Your task to perform on an android device: Clear all items from cart on newegg.com. Search for razer kraken on newegg.com, select the first entry, and add it to the cart. Image 0: 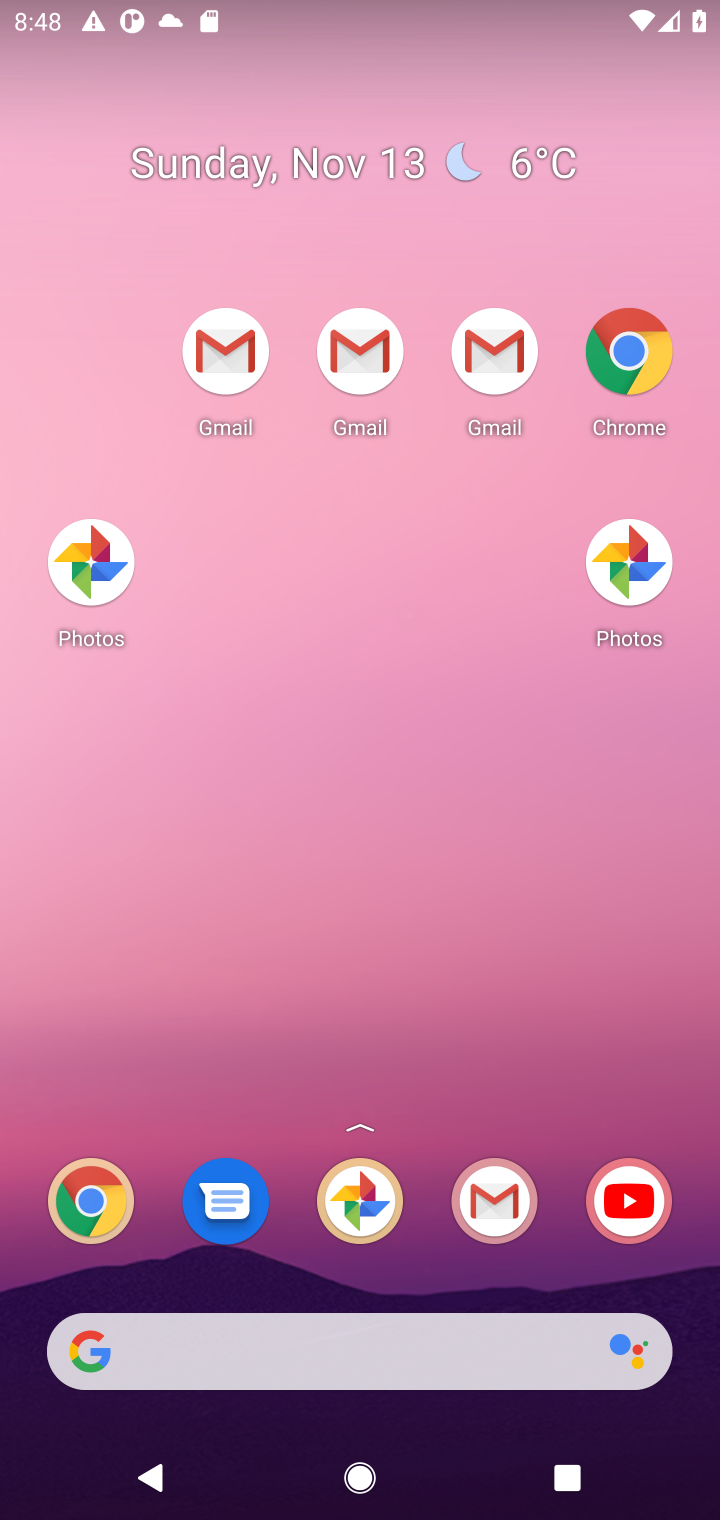
Step 0: drag from (425, 1292) to (526, 233)
Your task to perform on an android device: Clear all items from cart on newegg.com. Search for razer kraken on newegg.com, select the first entry, and add it to the cart. Image 1: 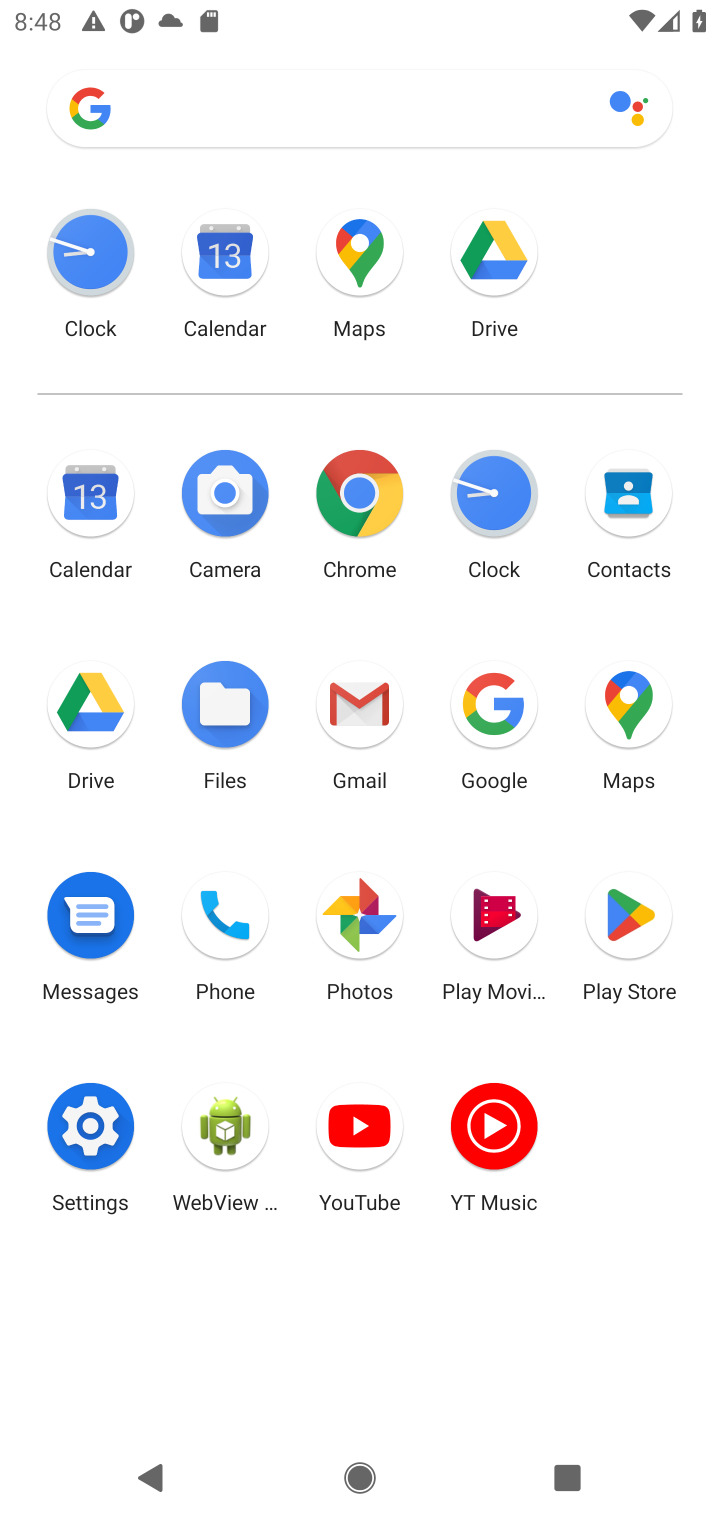
Step 1: click (352, 503)
Your task to perform on an android device: Clear all items from cart on newegg.com. Search for razer kraken on newegg.com, select the first entry, and add it to the cart. Image 2: 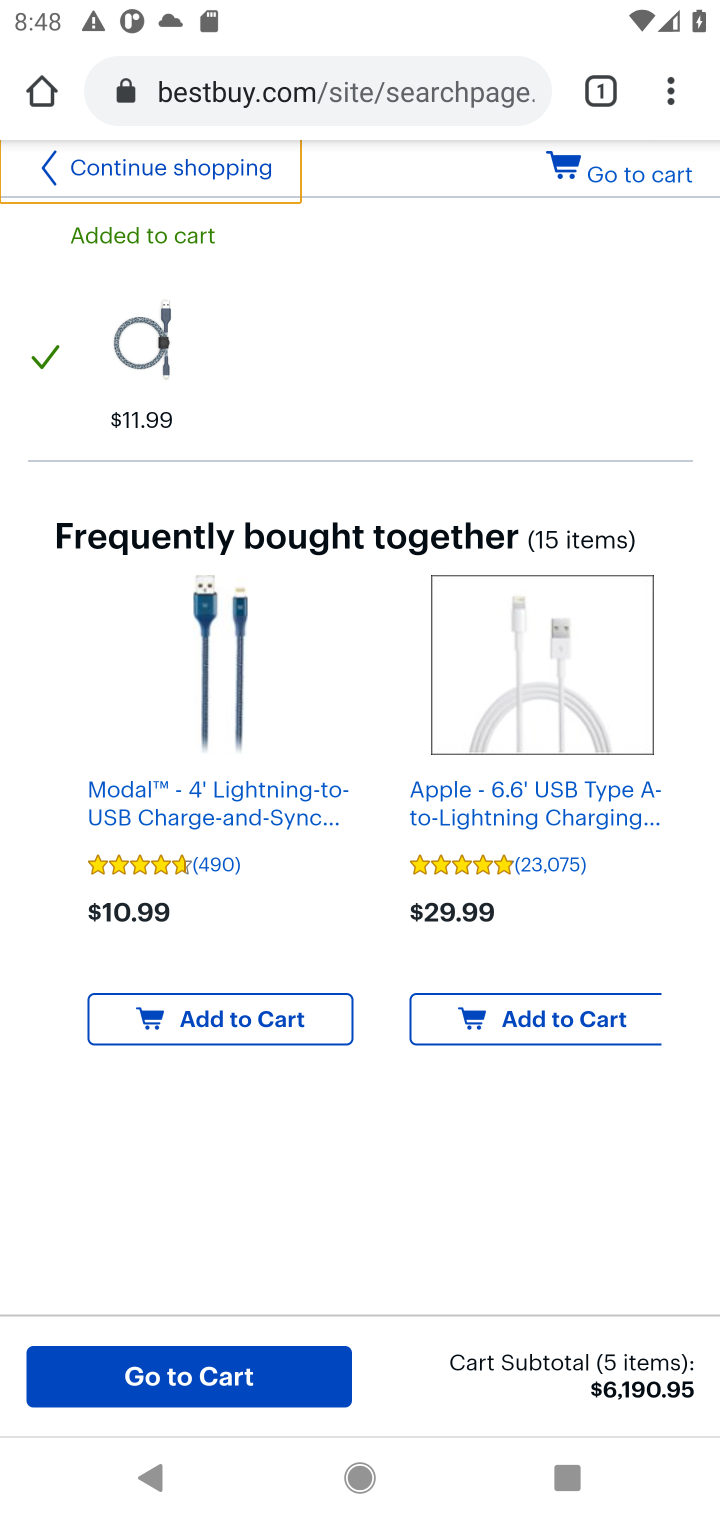
Step 2: click (346, 79)
Your task to perform on an android device: Clear all items from cart on newegg.com. Search for razer kraken on newegg.com, select the first entry, and add it to the cart. Image 3: 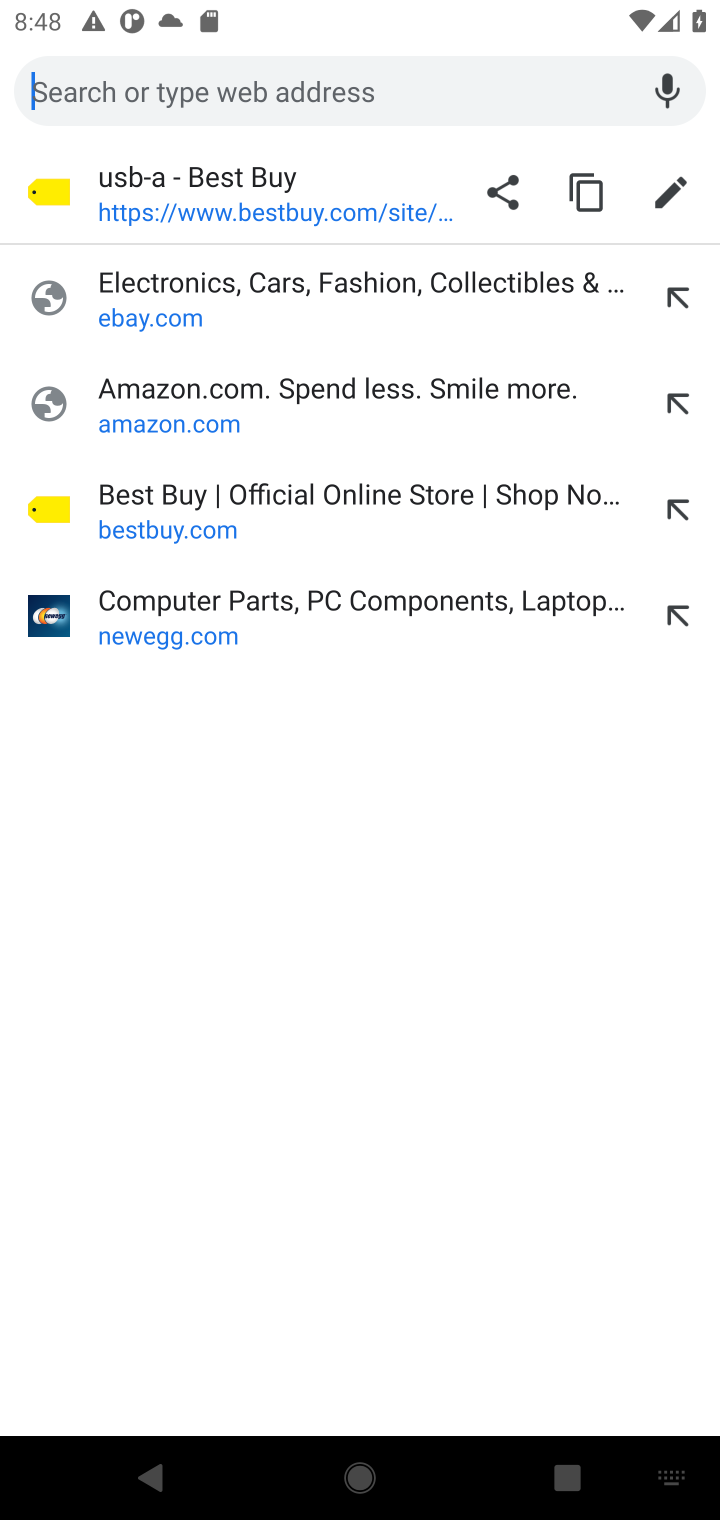
Step 3: type "newegg.com"
Your task to perform on an android device: Clear all items from cart on newegg.com. Search for razer kraken on newegg.com, select the first entry, and add it to the cart. Image 4: 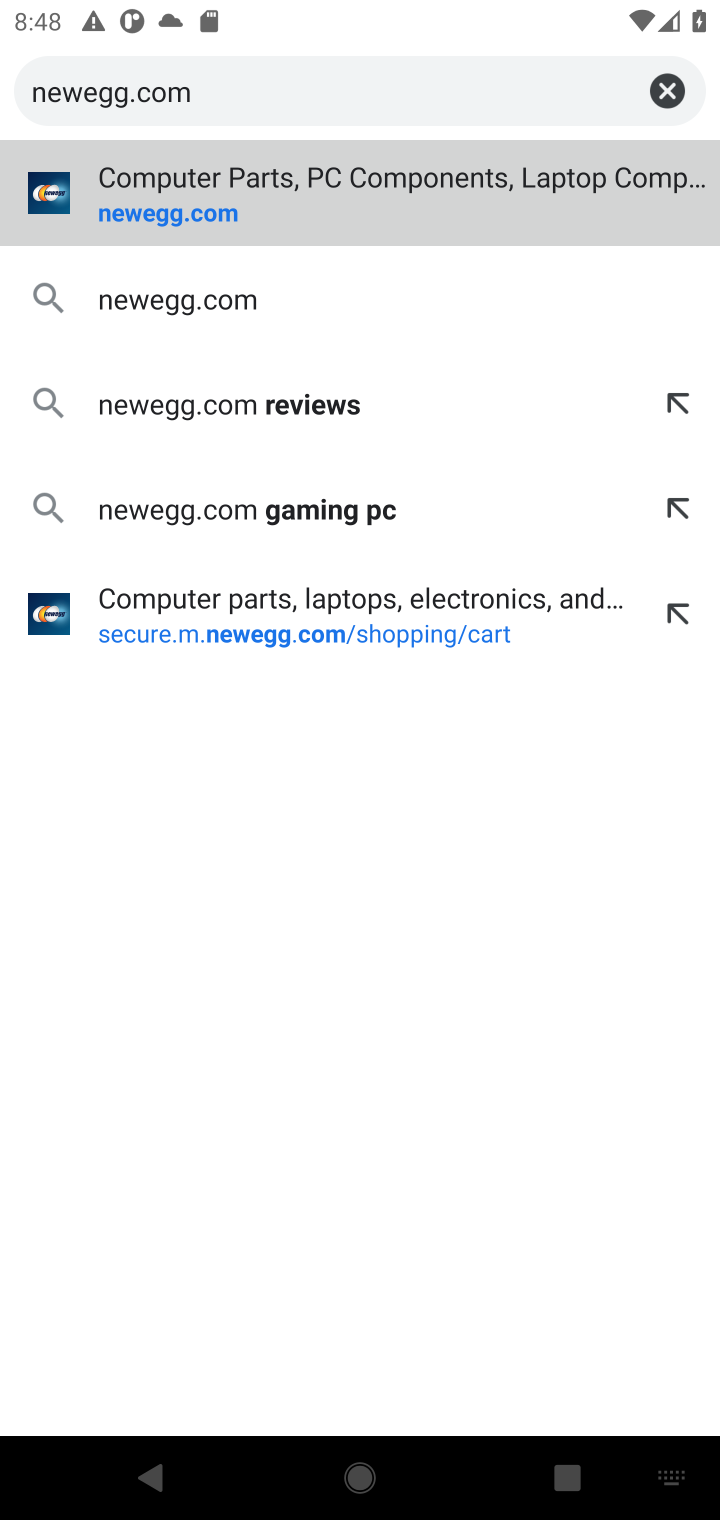
Step 4: press enter
Your task to perform on an android device: Clear all items from cart on newegg.com. Search for razer kraken on newegg.com, select the first entry, and add it to the cart. Image 5: 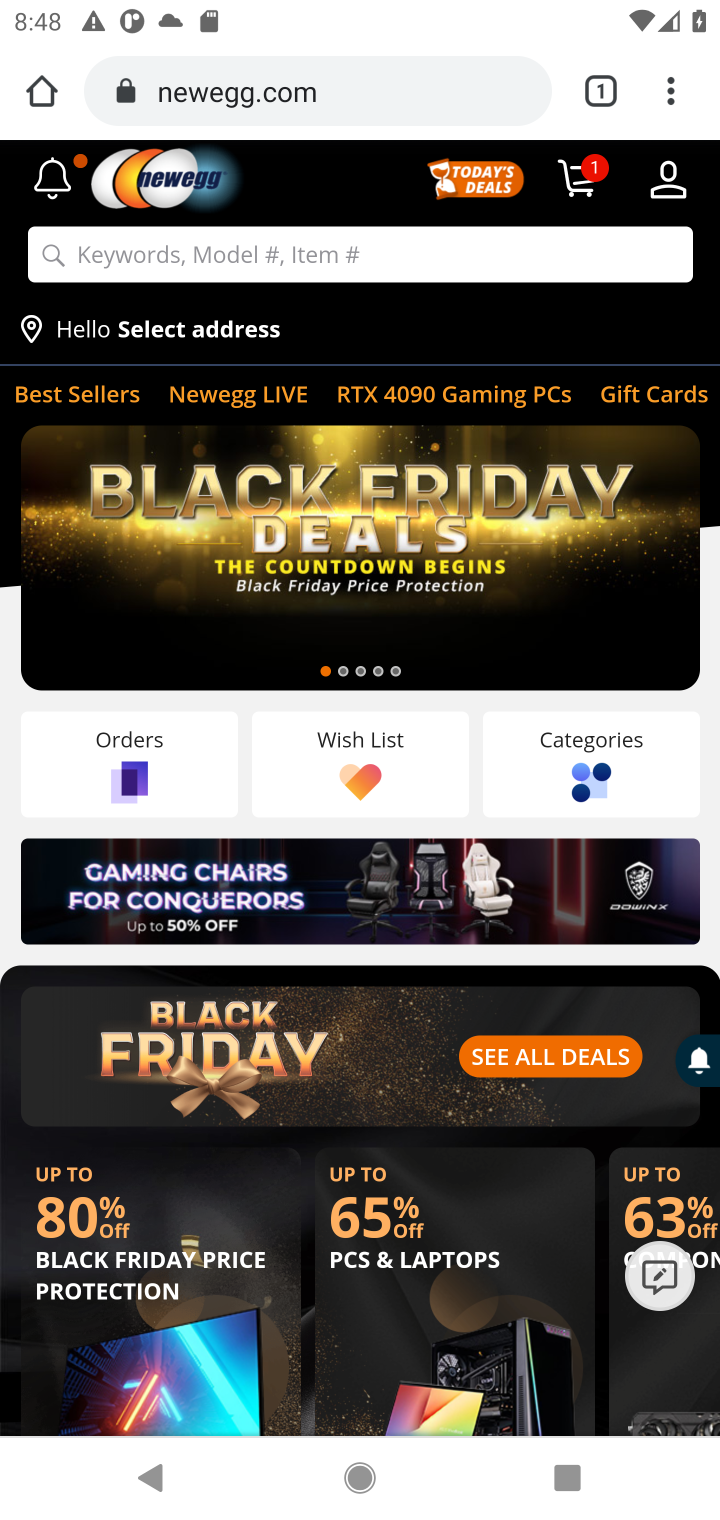
Step 5: click (590, 177)
Your task to perform on an android device: Clear all items from cart on newegg.com. Search for razer kraken on newegg.com, select the first entry, and add it to the cart. Image 6: 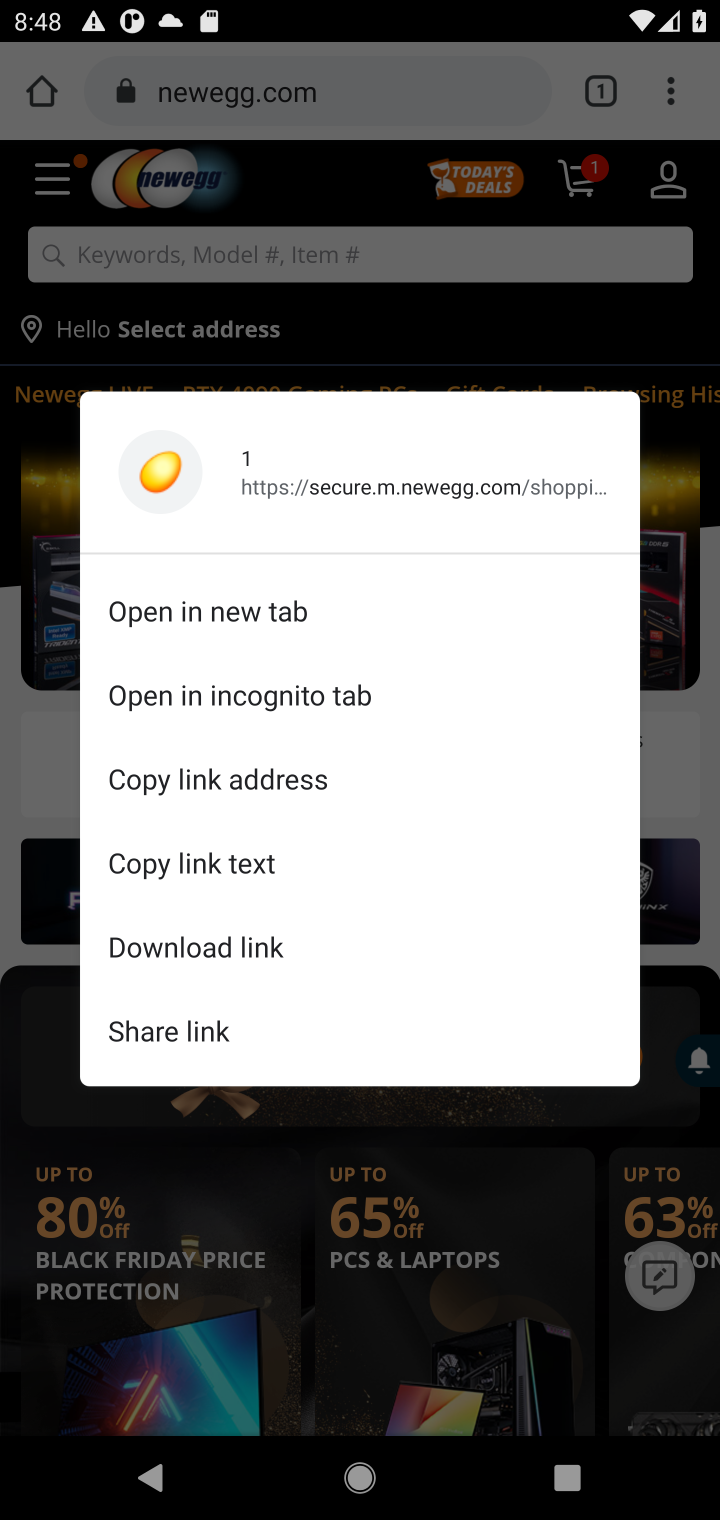
Step 6: click (575, 174)
Your task to perform on an android device: Clear all items from cart on newegg.com. Search for razer kraken on newegg.com, select the first entry, and add it to the cart. Image 7: 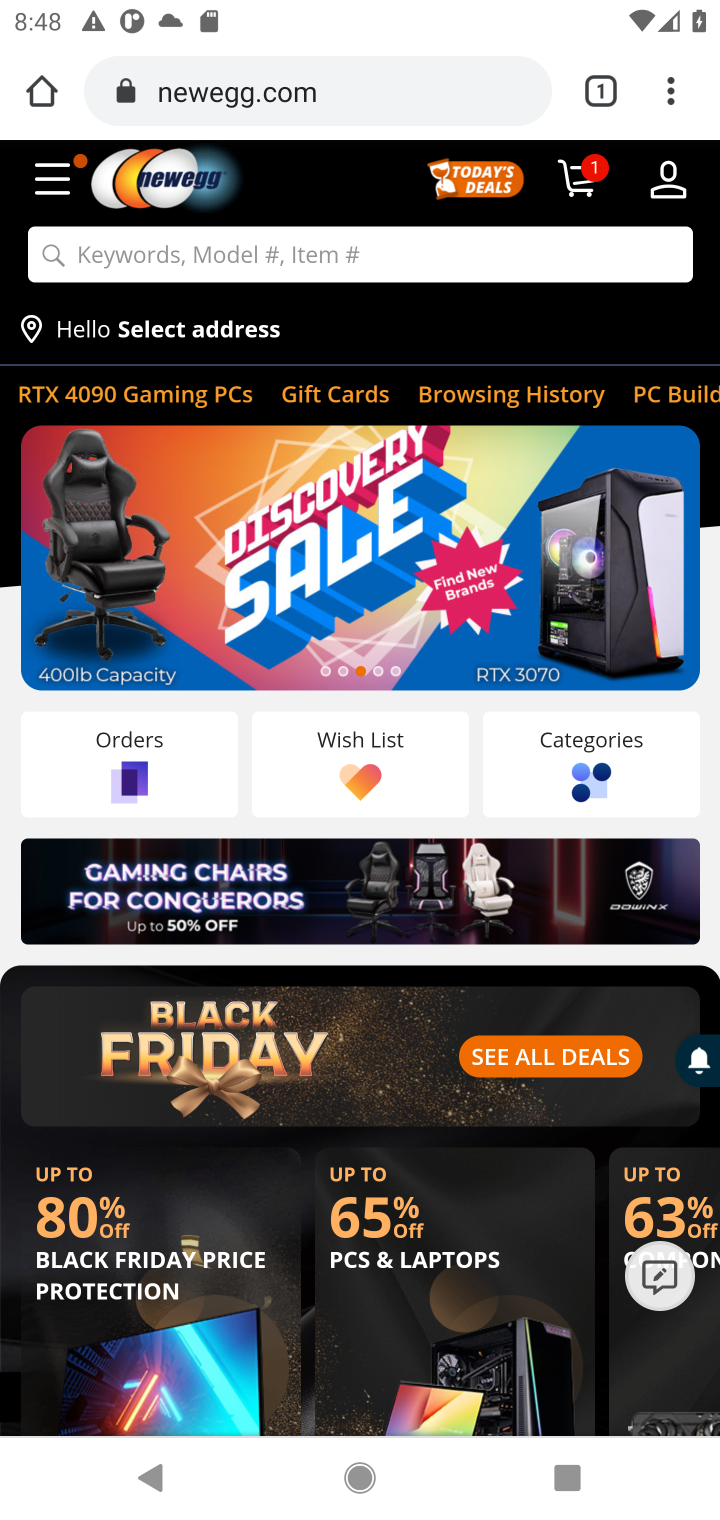
Step 7: click (571, 175)
Your task to perform on an android device: Clear all items from cart on newegg.com. Search for razer kraken on newegg.com, select the first entry, and add it to the cart. Image 8: 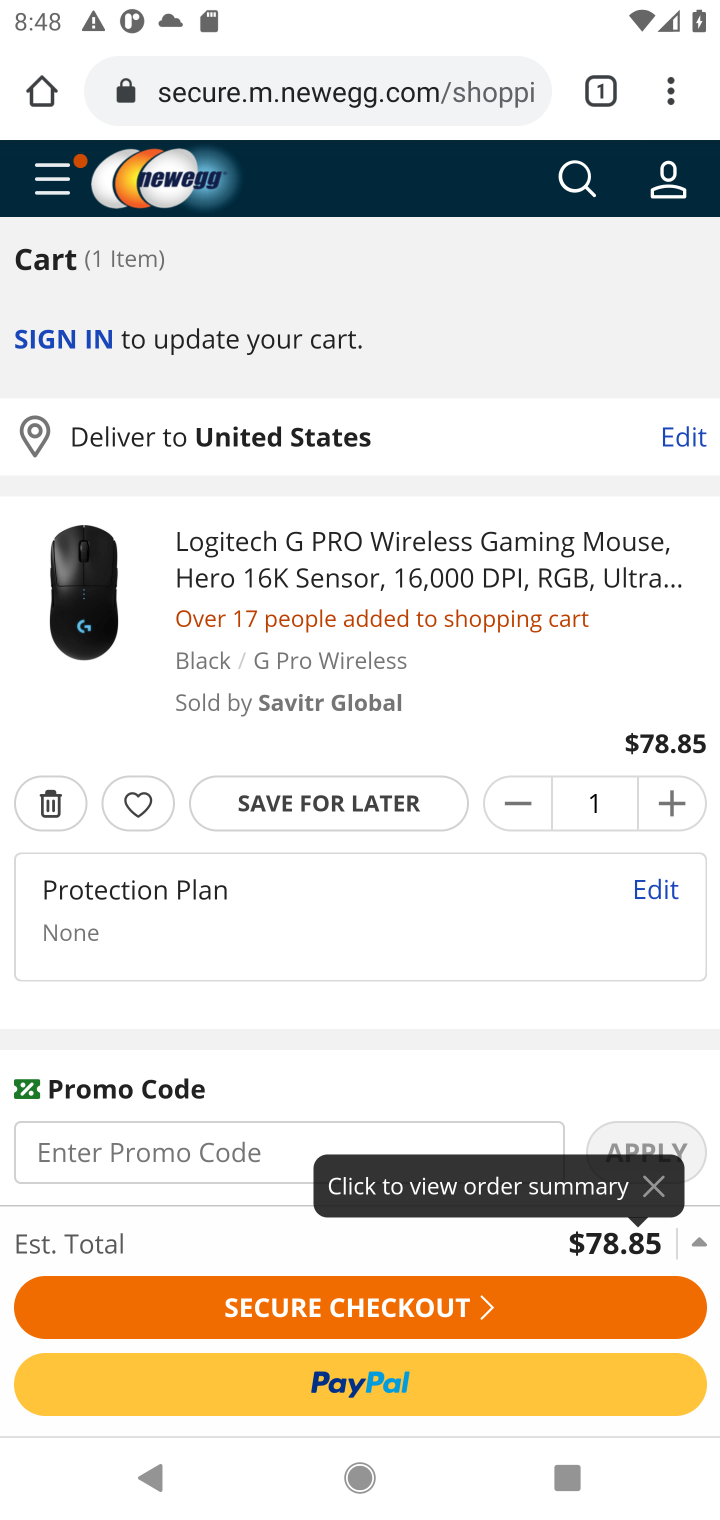
Step 8: click (49, 804)
Your task to perform on an android device: Clear all items from cart on newegg.com. Search for razer kraken on newegg.com, select the first entry, and add it to the cart. Image 9: 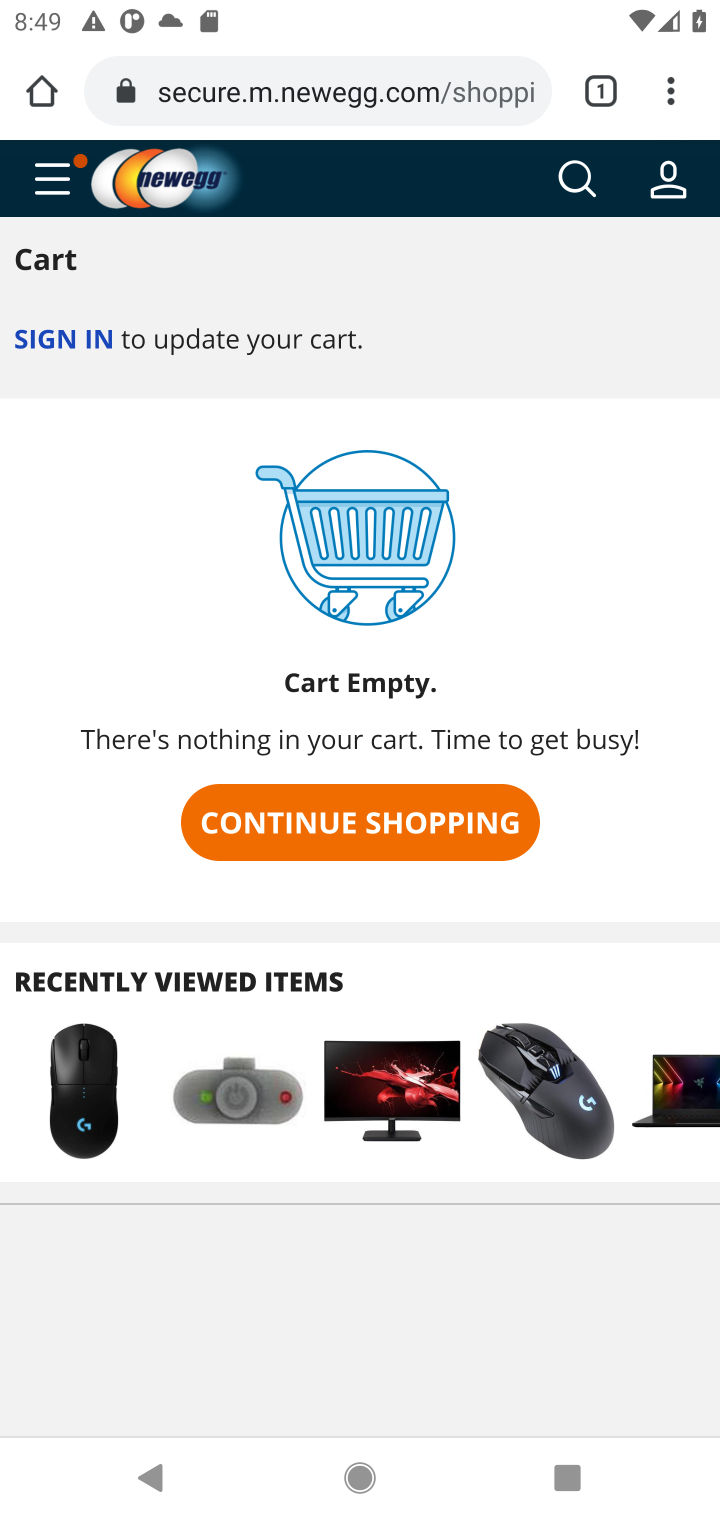
Step 9: click (417, 818)
Your task to perform on an android device: Clear all items from cart on newegg.com. Search for razer kraken on newegg.com, select the first entry, and add it to the cart. Image 10: 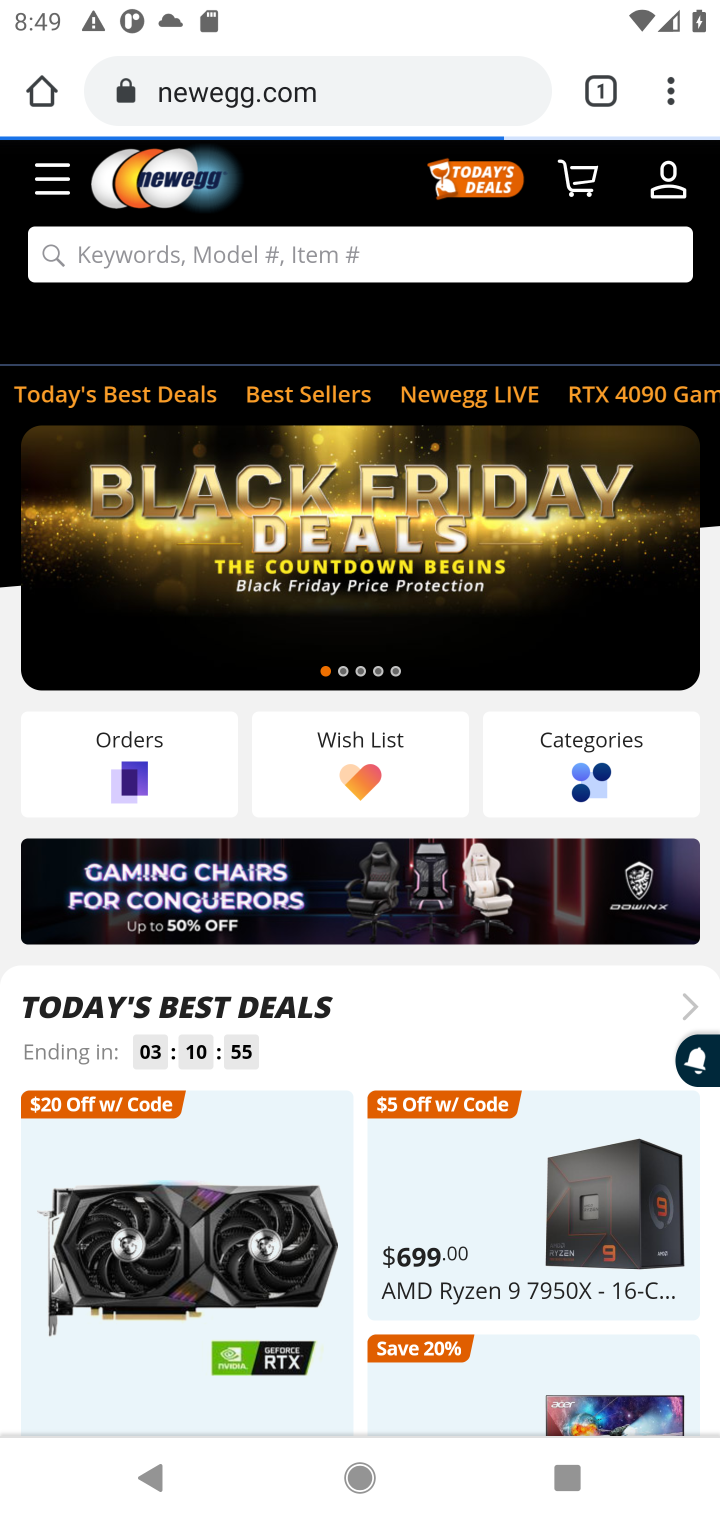
Step 10: click (374, 243)
Your task to perform on an android device: Clear all items from cart on newegg.com. Search for razer kraken on newegg.com, select the first entry, and add it to the cart. Image 11: 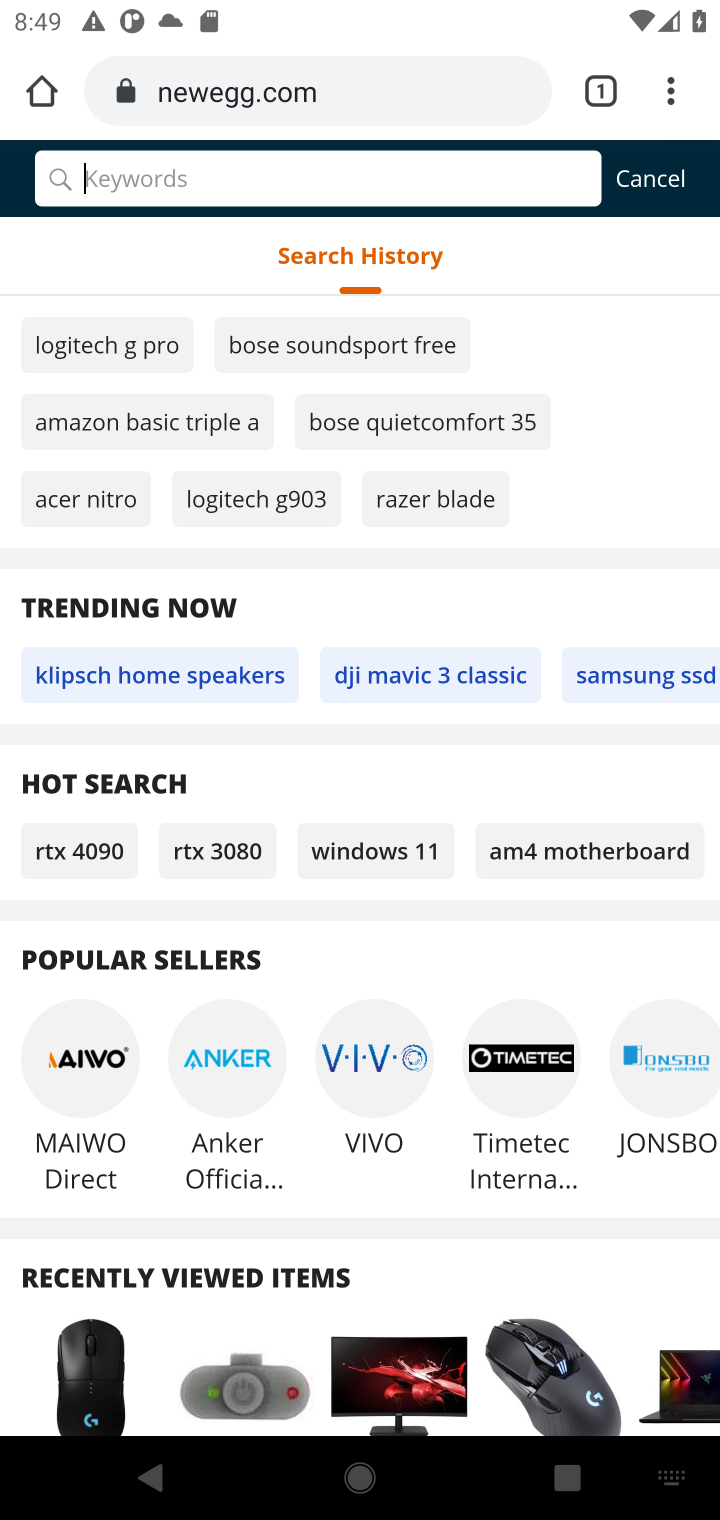
Step 11: type "razer kraken"
Your task to perform on an android device: Clear all items from cart on newegg.com. Search for razer kraken on newegg.com, select the first entry, and add it to the cart. Image 12: 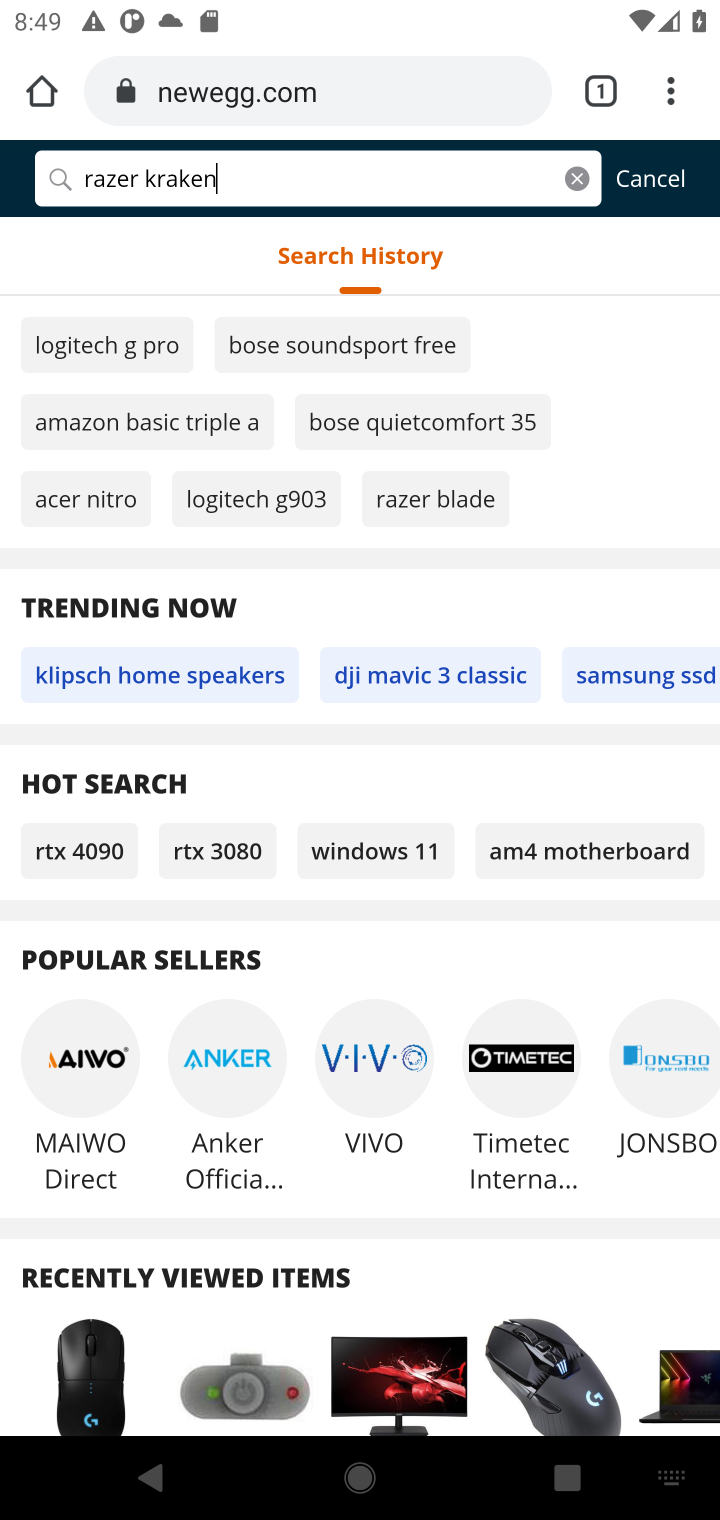
Step 12: press enter
Your task to perform on an android device: Clear all items from cart on newegg.com. Search for razer kraken on newegg.com, select the first entry, and add it to the cart. Image 13: 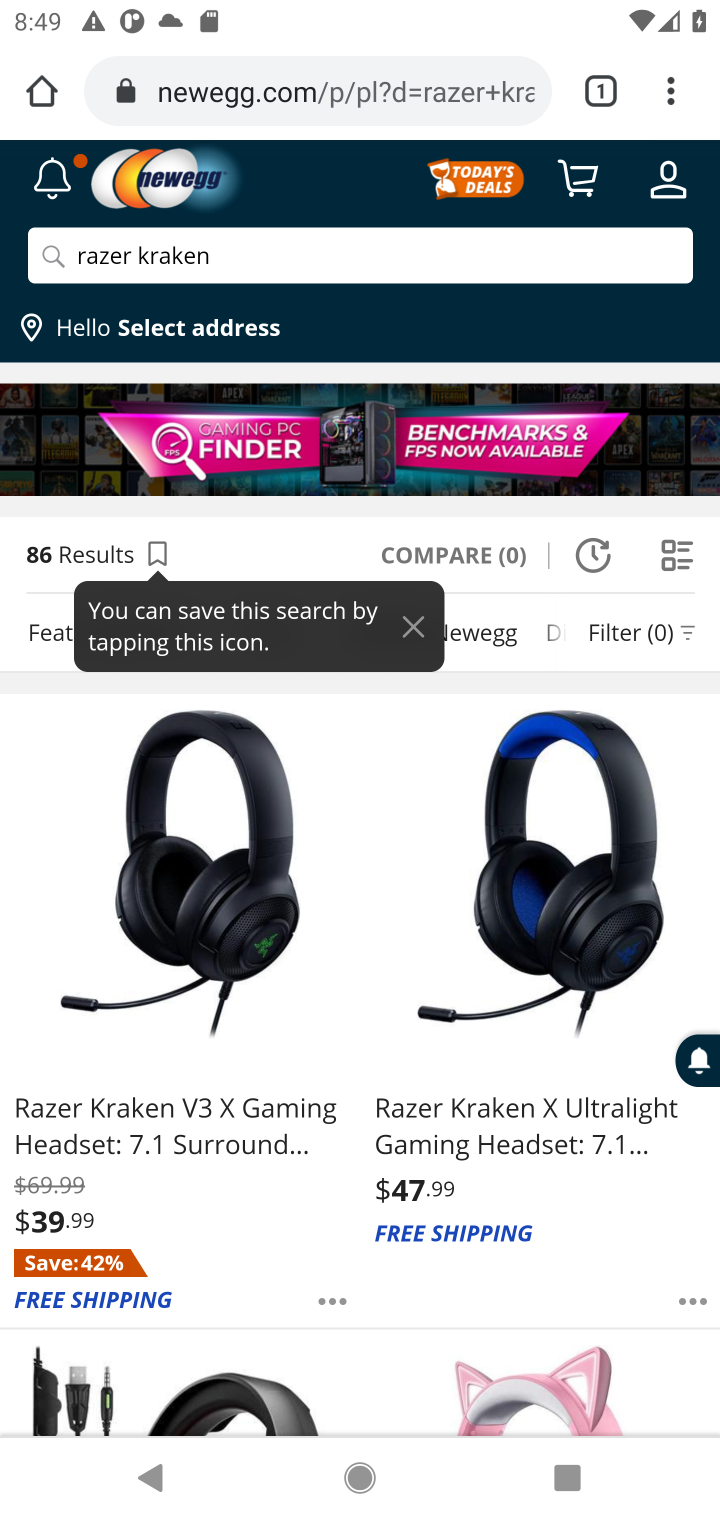
Step 13: click (161, 1117)
Your task to perform on an android device: Clear all items from cart on newegg.com. Search for razer kraken on newegg.com, select the first entry, and add it to the cart. Image 14: 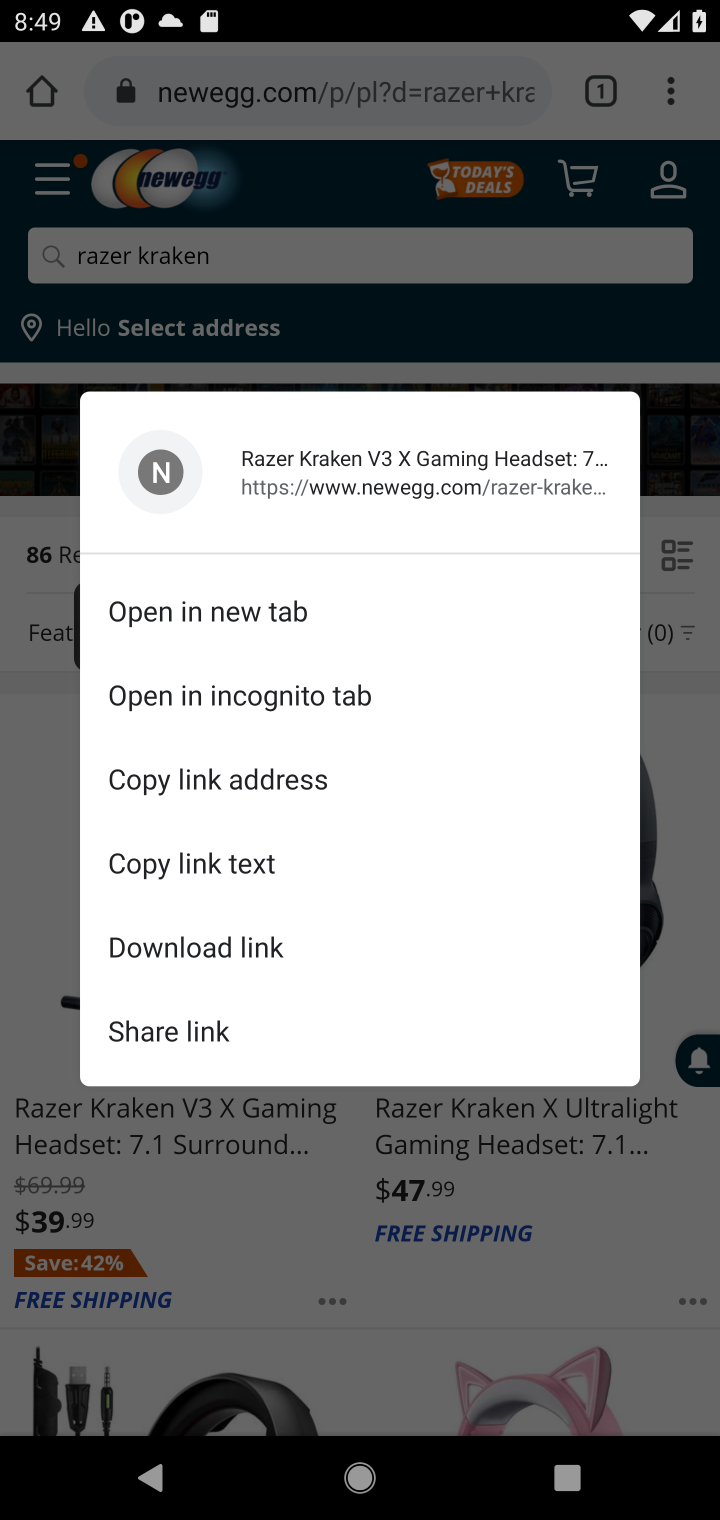
Step 14: click (181, 1135)
Your task to perform on an android device: Clear all items from cart on newegg.com. Search for razer kraken on newegg.com, select the first entry, and add it to the cart. Image 15: 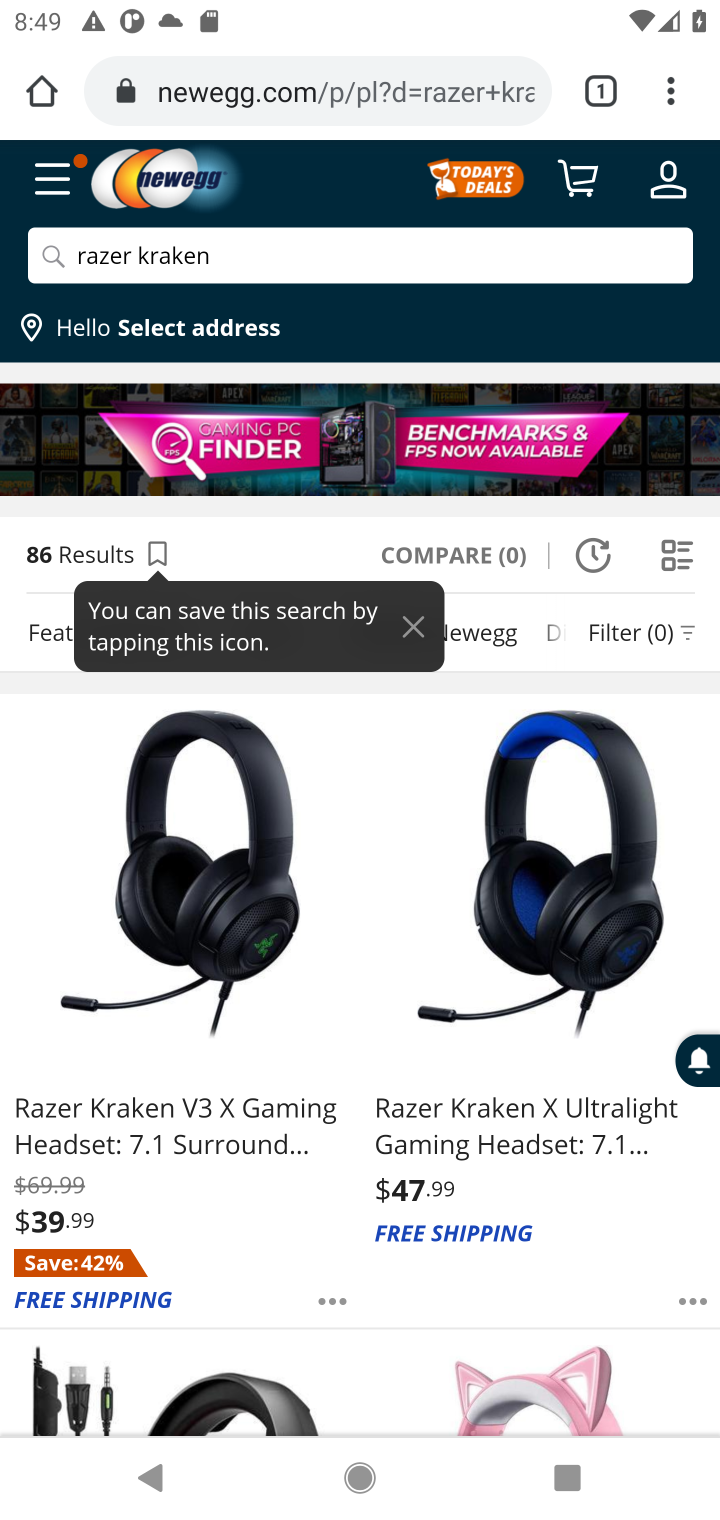
Step 15: click (181, 1135)
Your task to perform on an android device: Clear all items from cart on newegg.com. Search for razer kraken on newegg.com, select the first entry, and add it to the cart. Image 16: 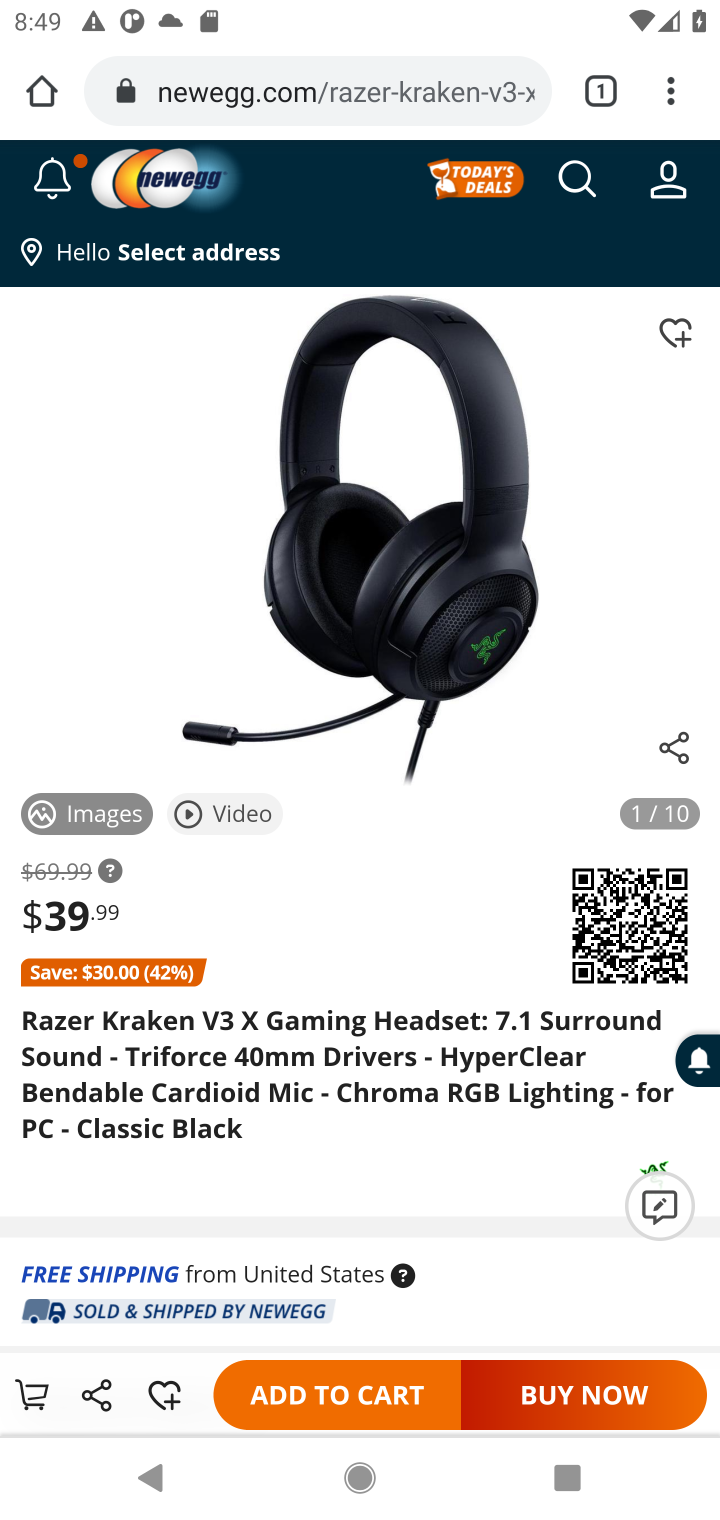
Step 16: click (286, 1407)
Your task to perform on an android device: Clear all items from cart on newegg.com. Search for razer kraken on newegg.com, select the first entry, and add it to the cart. Image 17: 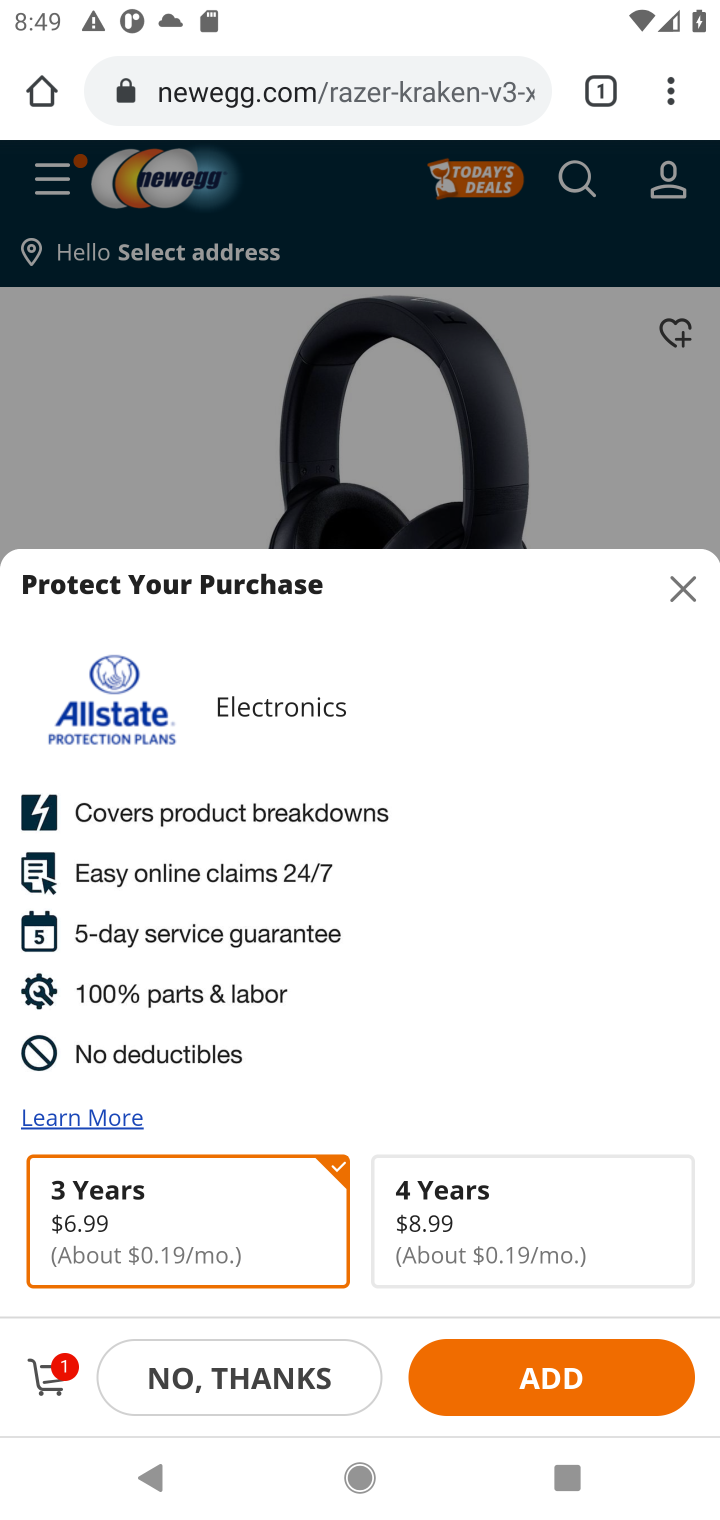
Step 17: task complete